Your task to perform on an android device: refresh tabs in the chrome app Image 0: 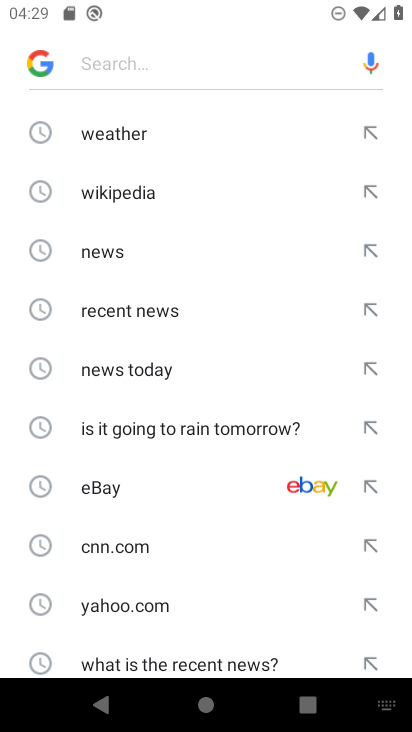
Step 0: press home button
Your task to perform on an android device: refresh tabs in the chrome app Image 1: 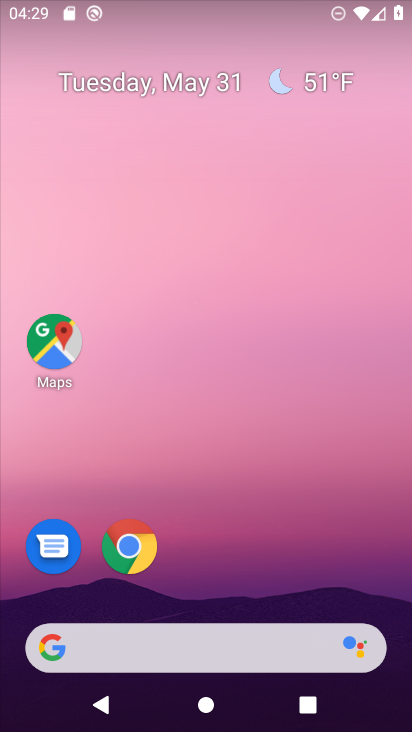
Step 1: click (132, 547)
Your task to perform on an android device: refresh tabs in the chrome app Image 2: 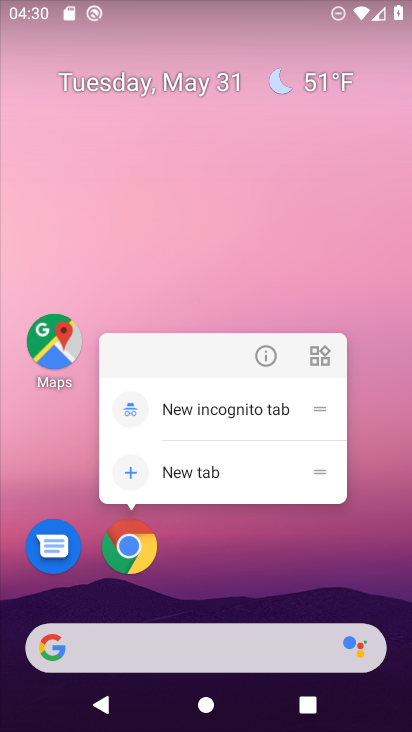
Step 2: click (132, 558)
Your task to perform on an android device: refresh tabs in the chrome app Image 3: 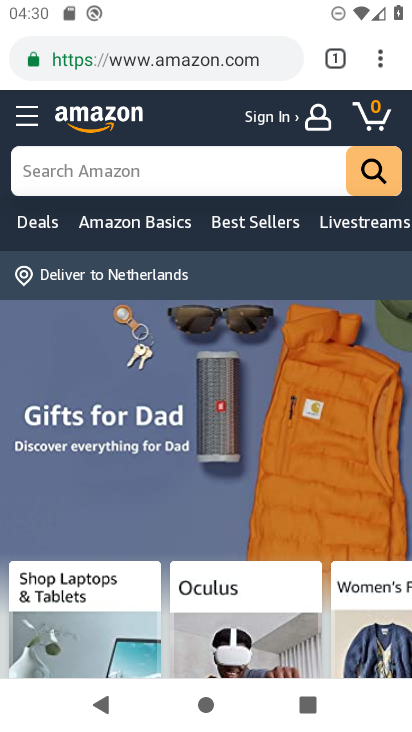
Step 3: click (381, 69)
Your task to perform on an android device: refresh tabs in the chrome app Image 4: 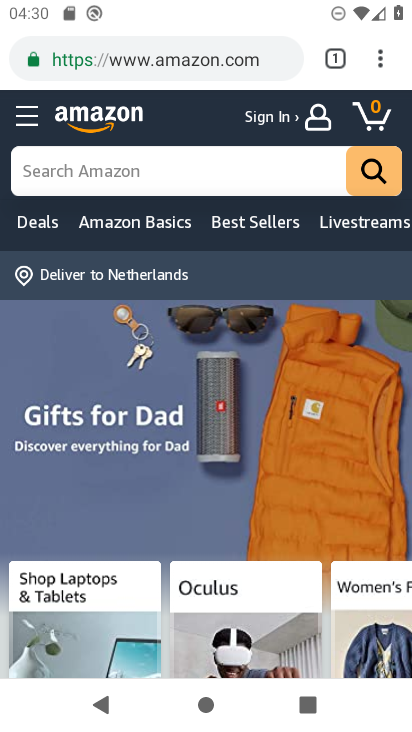
Step 4: click (377, 63)
Your task to perform on an android device: refresh tabs in the chrome app Image 5: 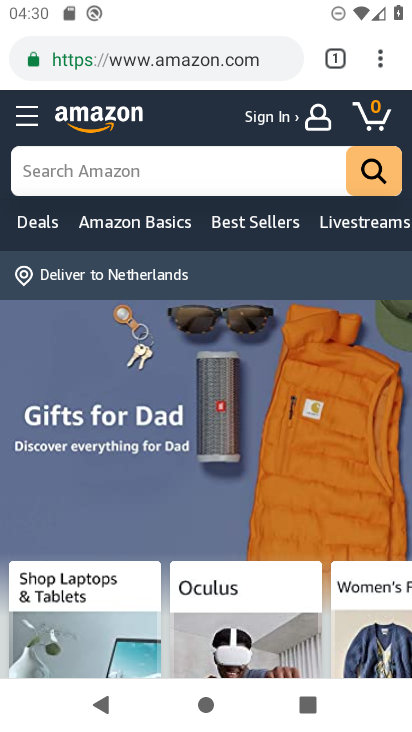
Step 5: click (381, 63)
Your task to perform on an android device: refresh tabs in the chrome app Image 6: 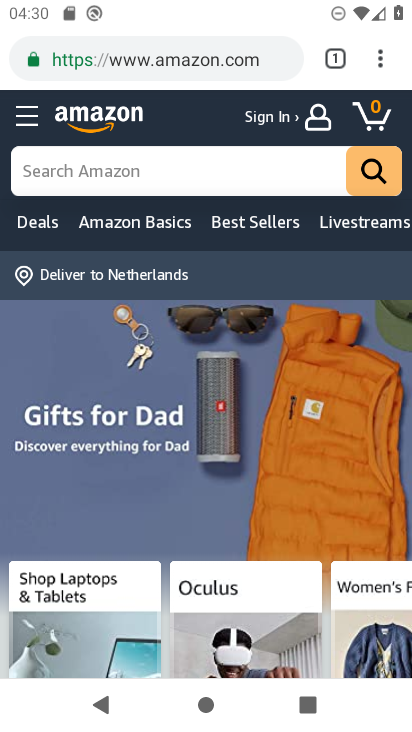
Step 6: click (379, 62)
Your task to perform on an android device: refresh tabs in the chrome app Image 7: 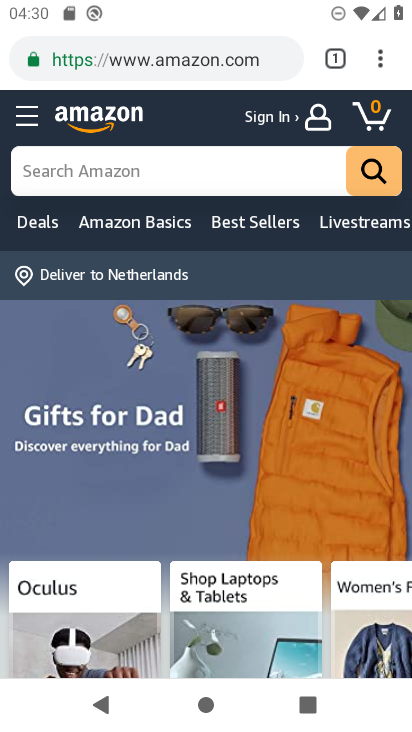
Step 7: click (380, 61)
Your task to perform on an android device: refresh tabs in the chrome app Image 8: 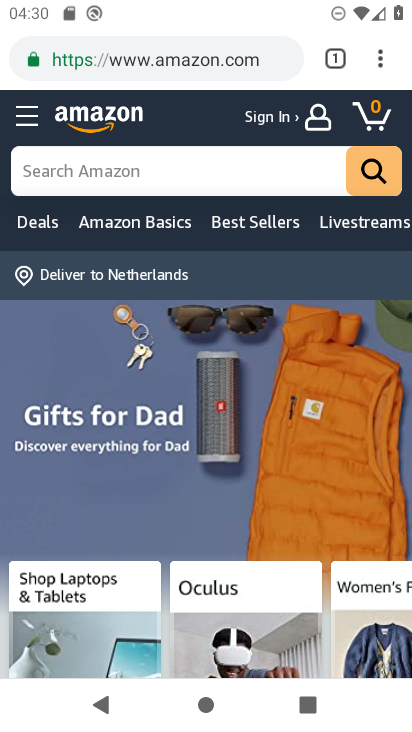
Step 8: click (381, 66)
Your task to perform on an android device: refresh tabs in the chrome app Image 9: 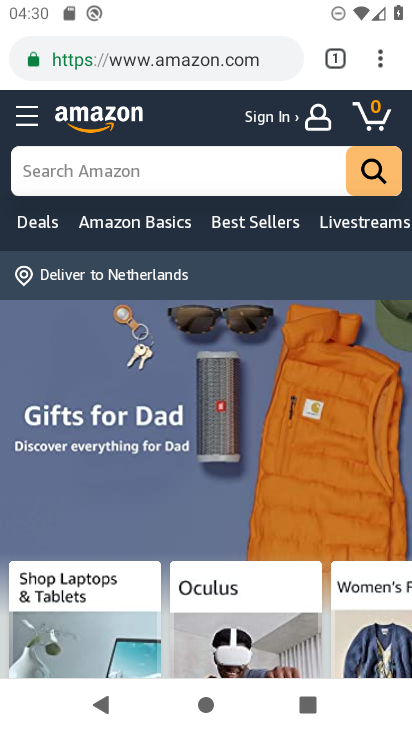
Step 9: click (382, 52)
Your task to perform on an android device: refresh tabs in the chrome app Image 10: 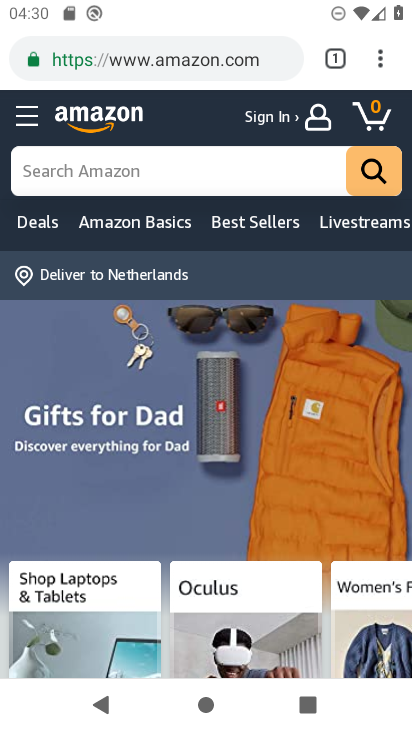
Step 10: click (384, 64)
Your task to perform on an android device: refresh tabs in the chrome app Image 11: 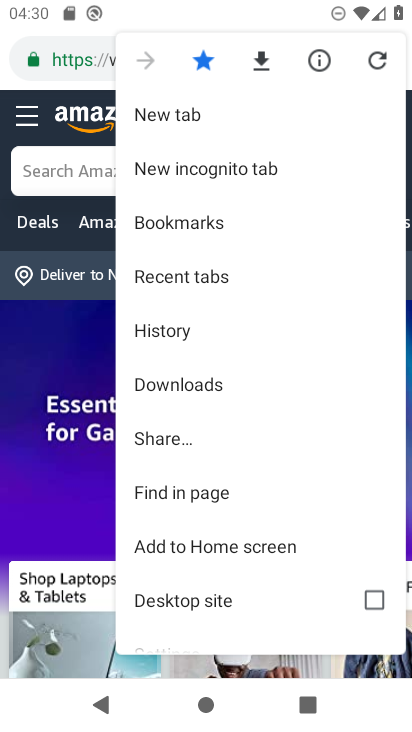
Step 11: click (376, 55)
Your task to perform on an android device: refresh tabs in the chrome app Image 12: 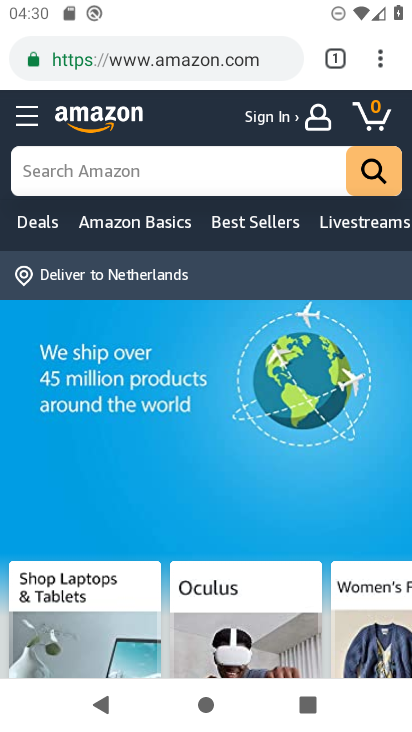
Step 12: task complete